Your task to perform on an android device: visit the assistant section in the google photos Image 0: 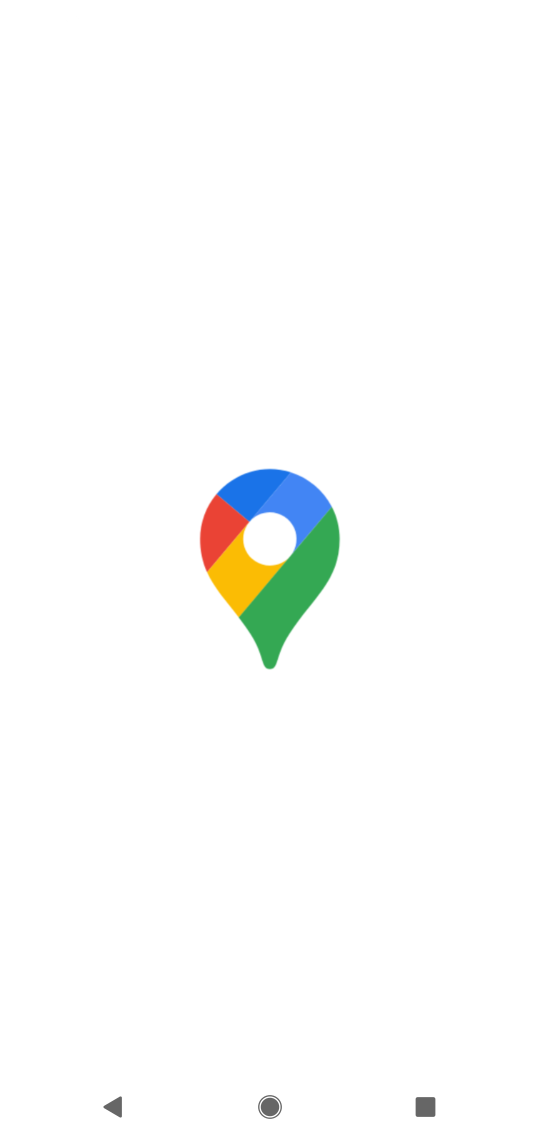
Step 0: press home button
Your task to perform on an android device: visit the assistant section in the google photos Image 1: 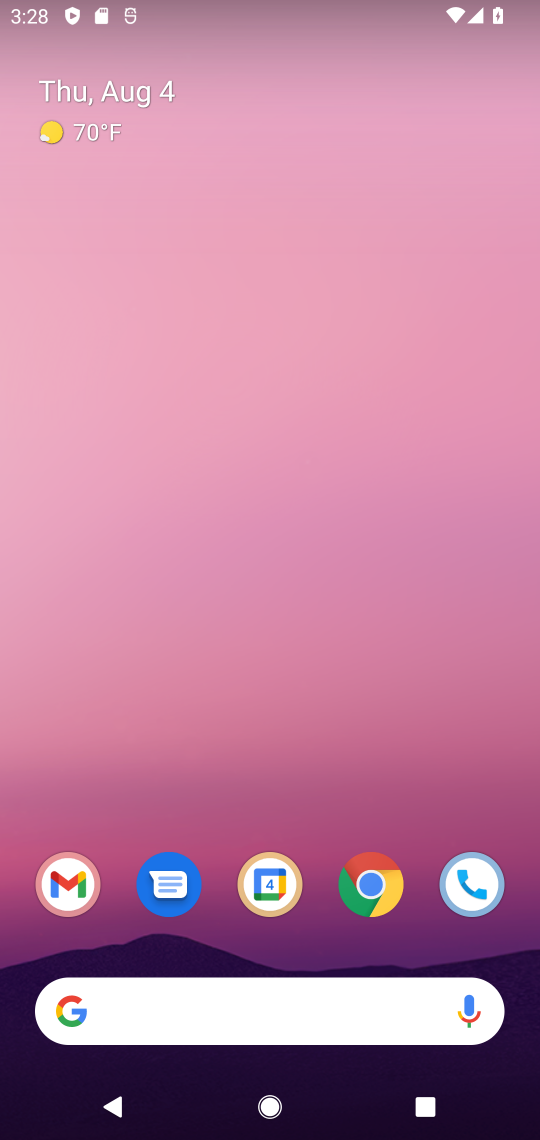
Step 1: drag from (220, 925) to (292, 302)
Your task to perform on an android device: visit the assistant section in the google photos Image 2: 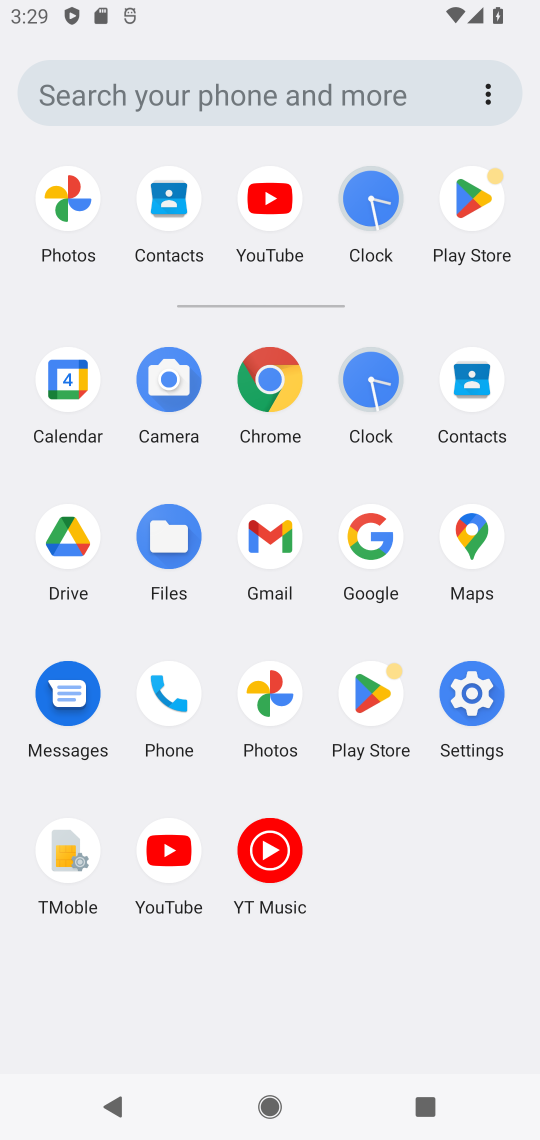
Step 2: click (274, 372)
Your task to perform on an android device: visit the assistant section in the google photos Image 3: 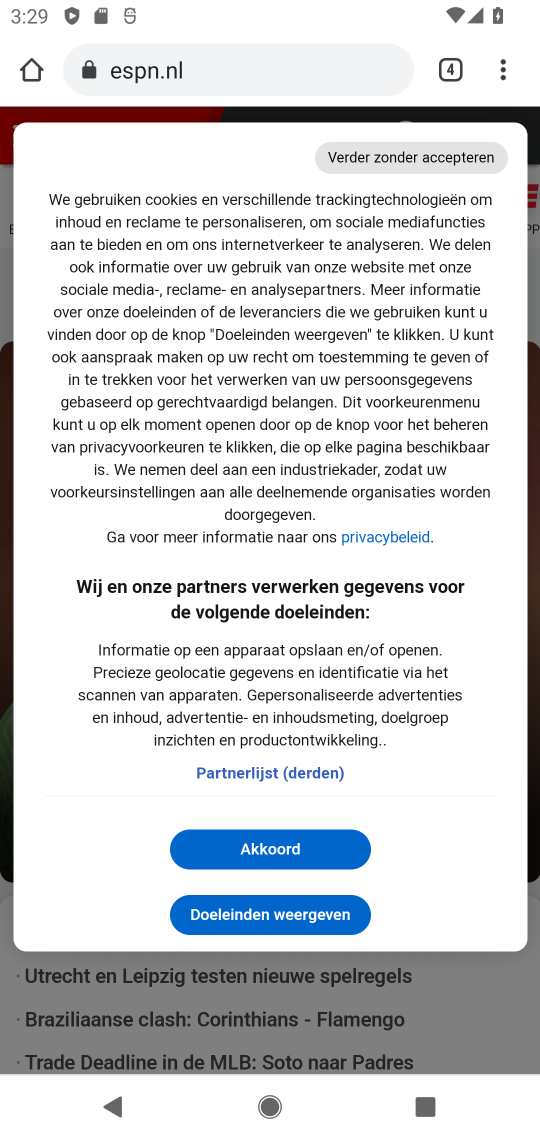
Step 3: click (501, 75)
Your task to perform on an android device: visit the assistant section in the google photos Image 4: 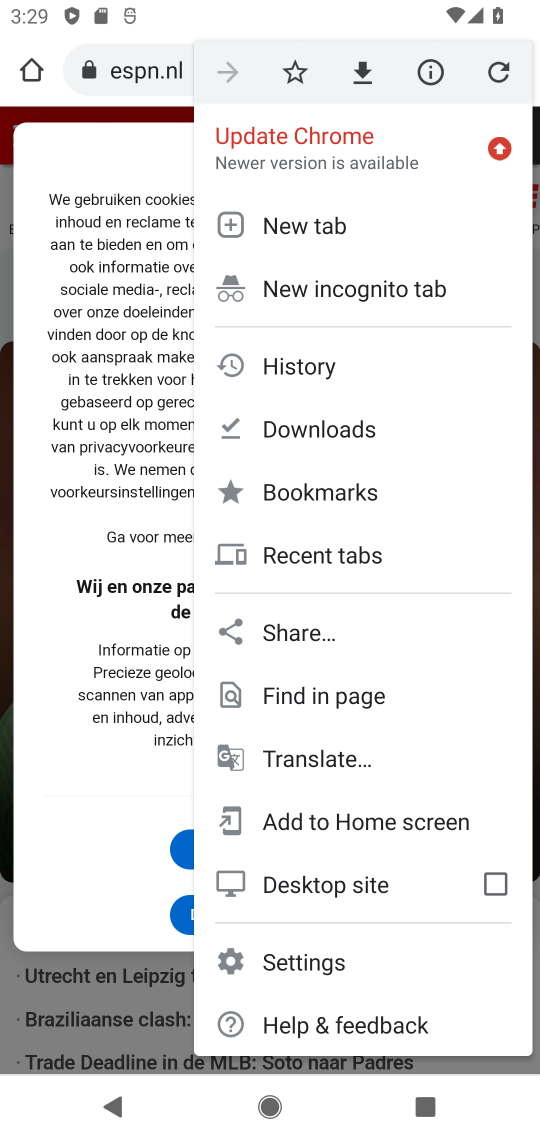
Step 4: press home button
Your task to perform on an android device: visit the assistant section in the google photos Image 5: 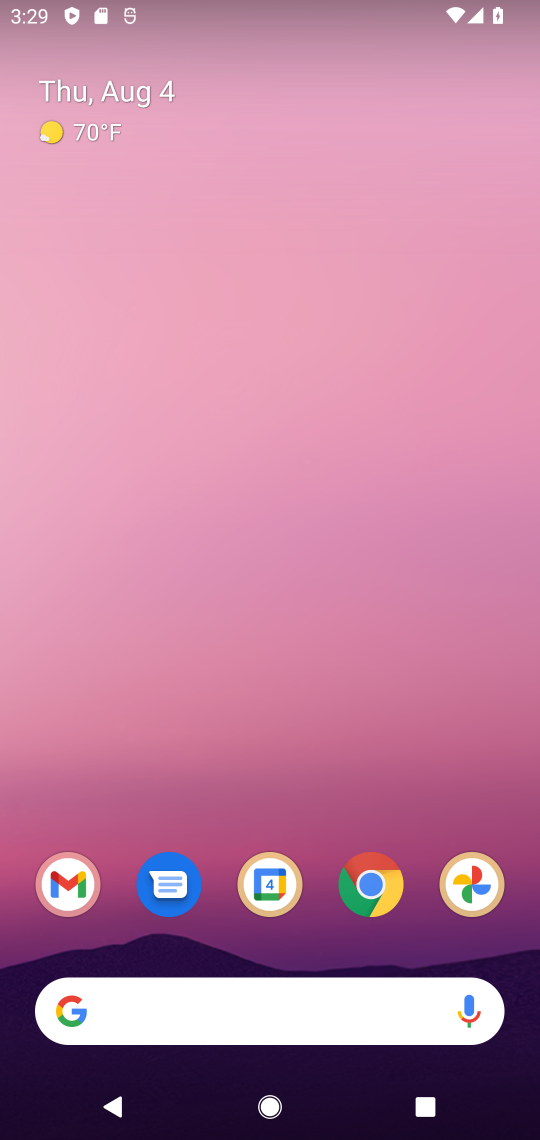
Step 5: drag from (257, 867) to (270, 36)
Your task to perform on an android device: visit the assistant section in the google photos Image 6: 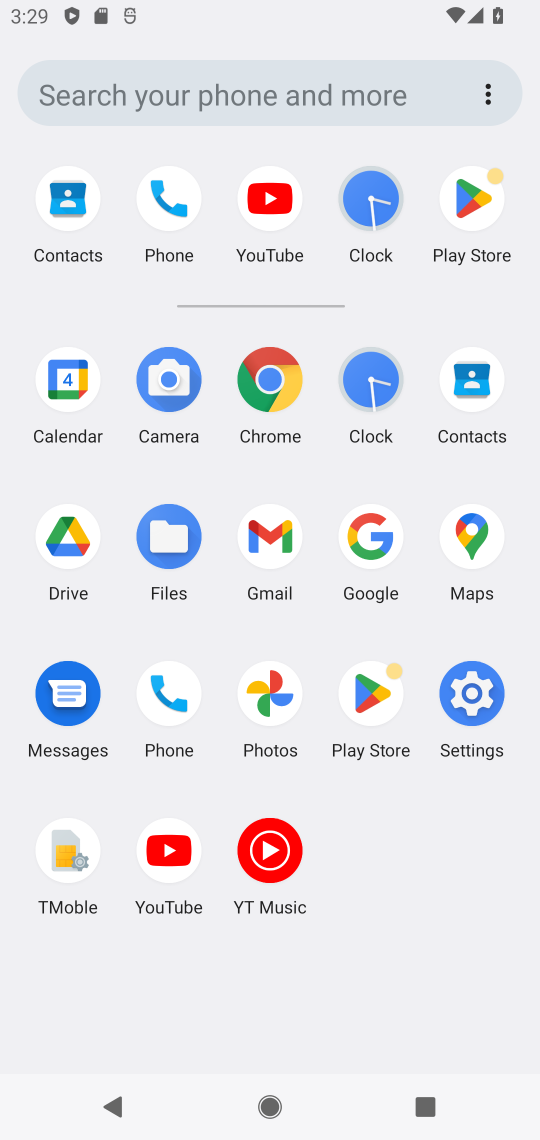
Step 6: click (263, 682)
Your task to perform on an android device: visit the assistant section in the google photos Image 7: 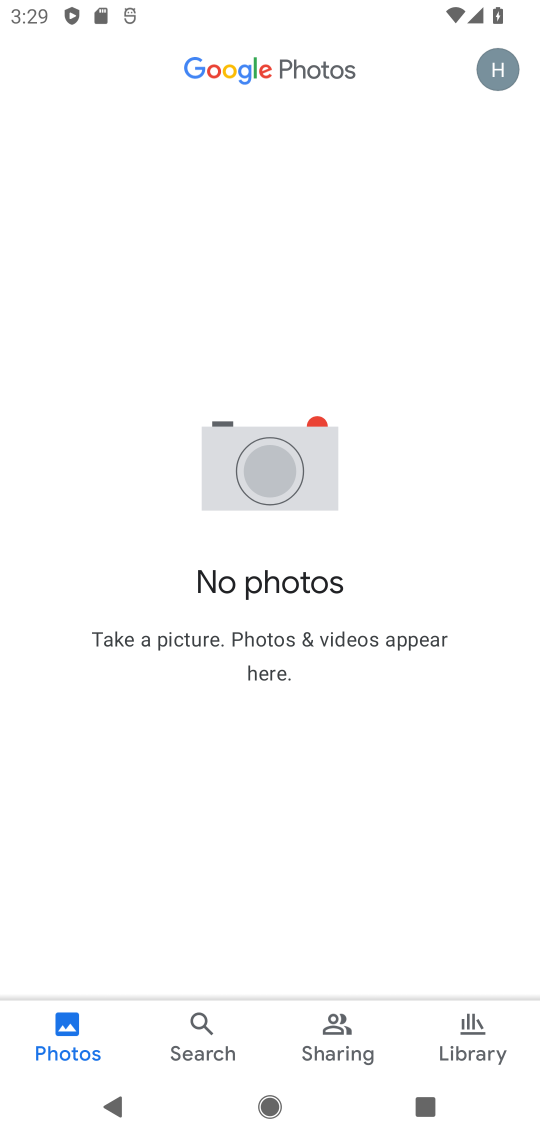
Step 7: click (192, 1015)
Your task to perform on an android device: visit the assistant section in the google photos Image 8: 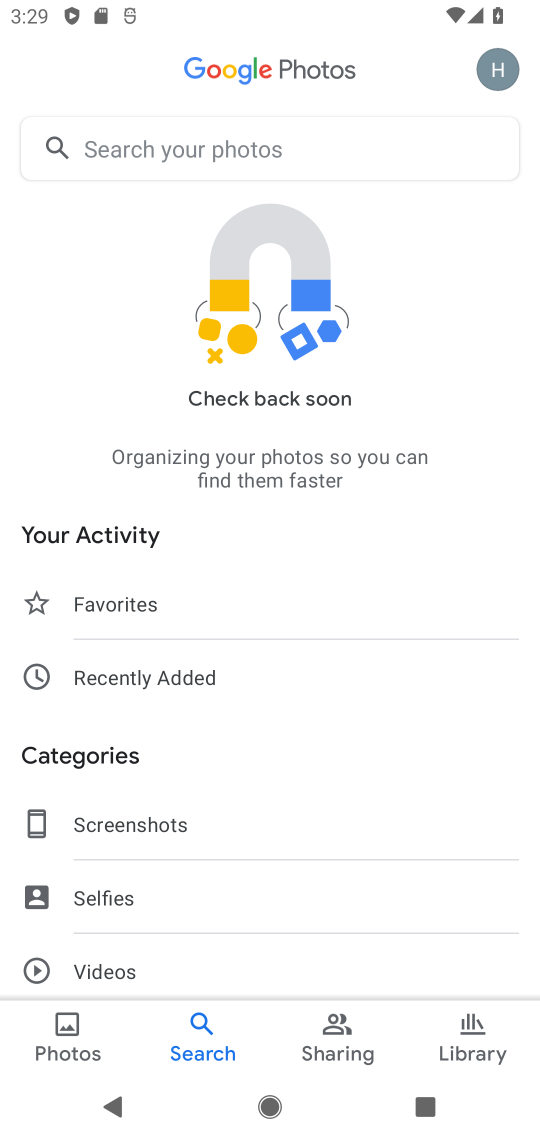
Step 8: click (361, 1047)
Your task to perform on an android device: visit the assistant section in the google photos Image 9: 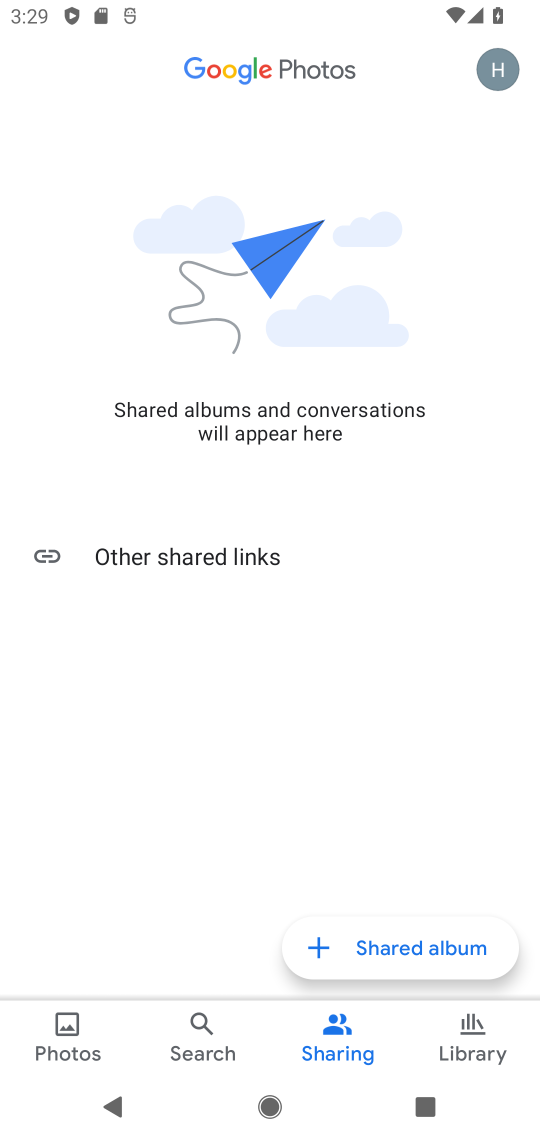
Step 9: click (208, 1039)
Your task to perform on an android device: visit the assistant section in the google photos Image 10: 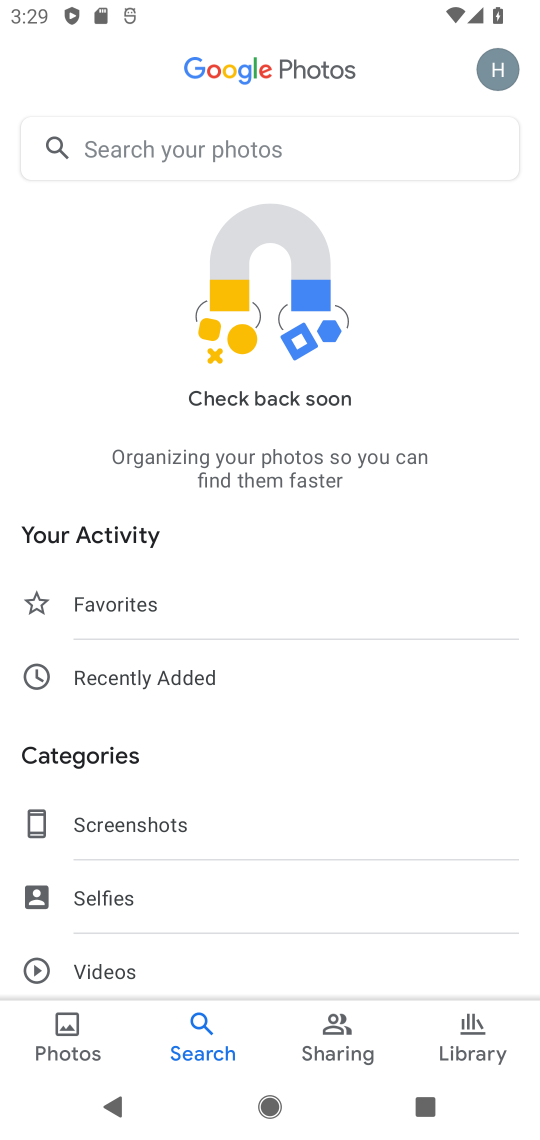
Step 10: drag from (246, 879) to (316, 354)
Your task to perform on an android device: visit the assistant section in the google photos Image 11: 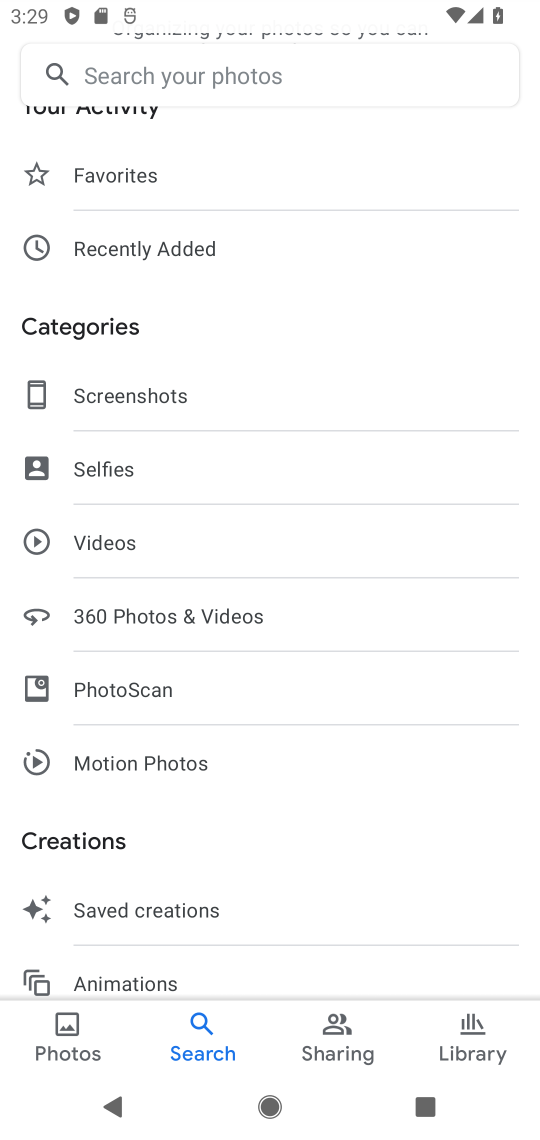
Step 11: drag from (280, 957) to (338, 440)
Your task to perform on an android device: visit the assistant section in the google photos Image 12: 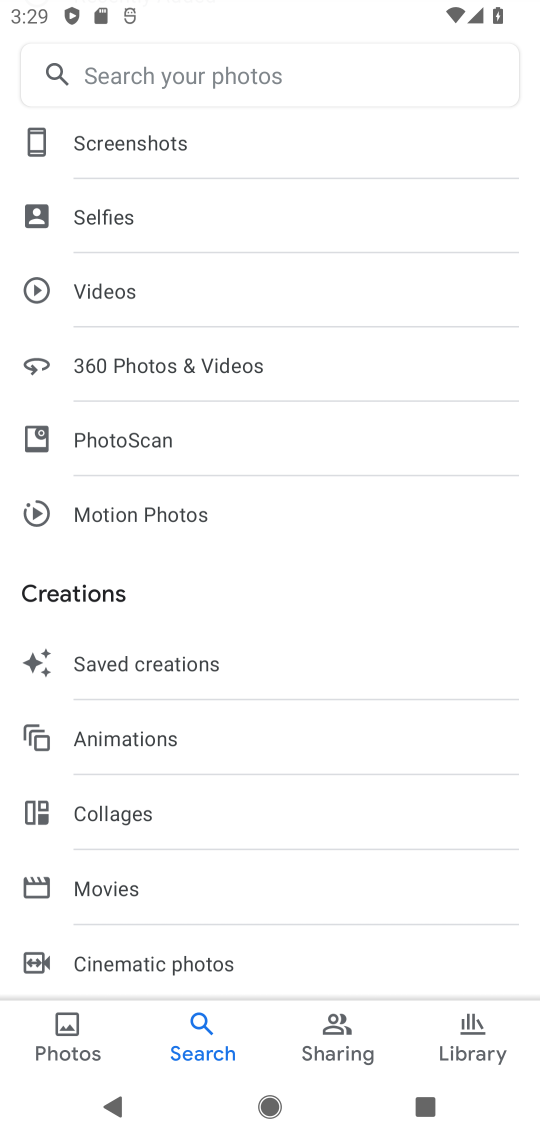
Step 12: drag from (208, 1064) to (253, 465)
Your task to perform on an android device: visit the assistant section in the google photos Image 13: 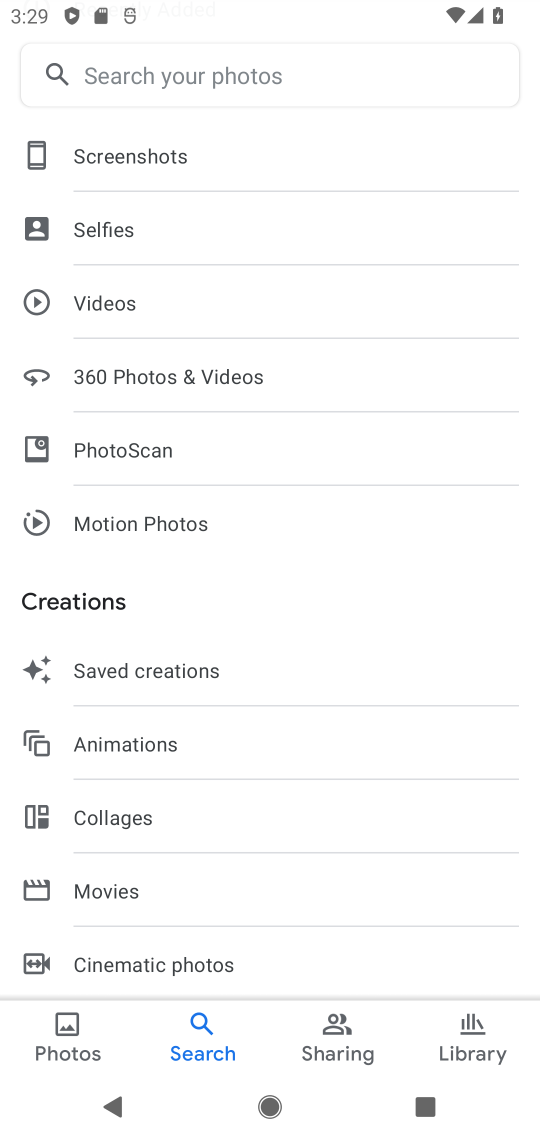
Step 13: click (48, 1029)
Your task to perform on an android device: visit the assistant section in the google photos Image 14: 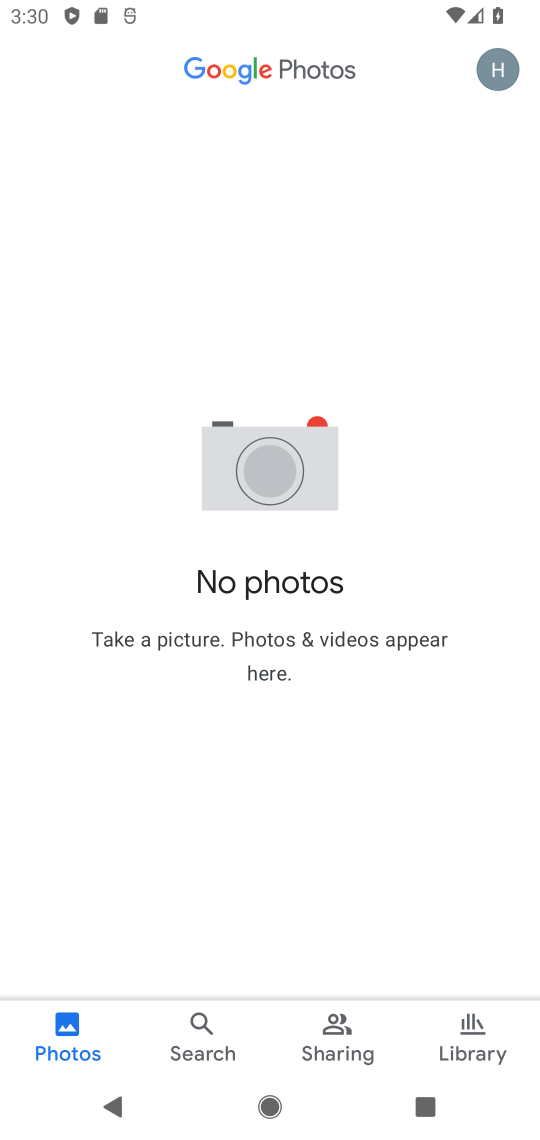
Step 14: click (473, 54)
Your task to perform on an android device: visit the assistant section in the google photos Image 15: 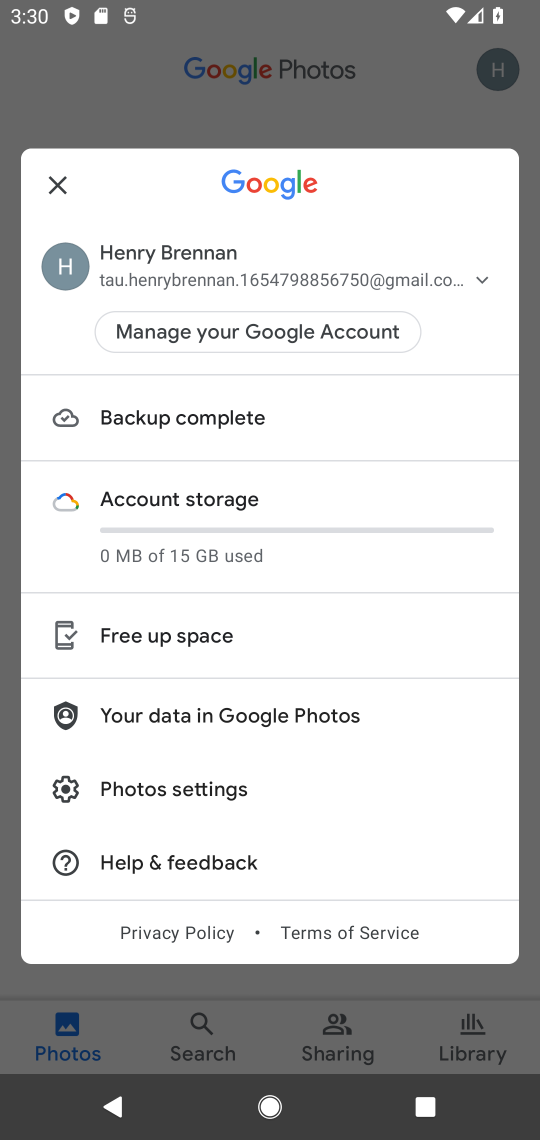
Step 15: task complete